Your task to perform on an android device: open chrome and create a bookmark for the current page Image 0: 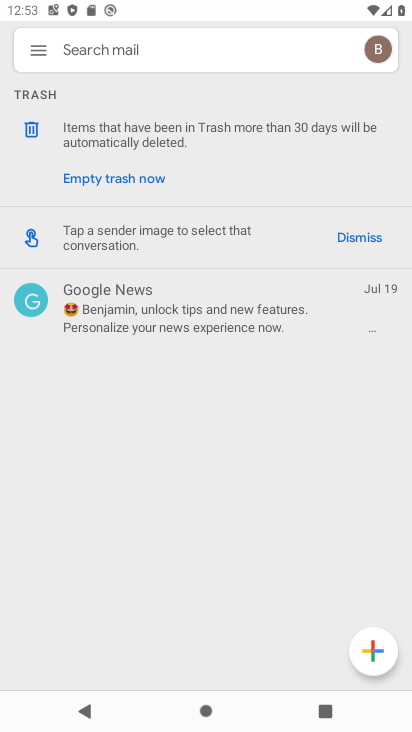
Step 0: press home button
Your task to perform on an android device: open chrome and create a bookmark for the current page Image 1: 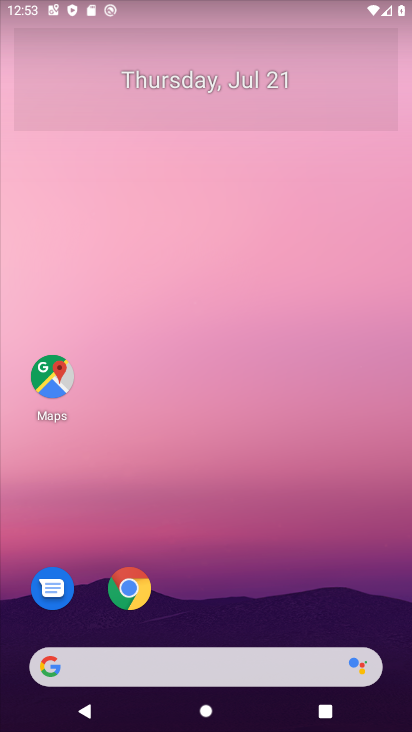
Step 1: click (129, 588)
Your task to perform on an android device: open chrome and create a bookmark for the current page Image 2: 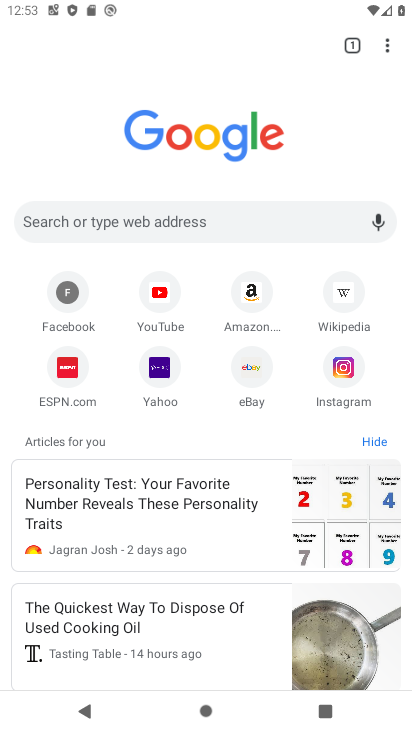
Step 2: click (383, 45)
Your task to perform on an android device: open chrome and create a bookmark for the current page Image 3: 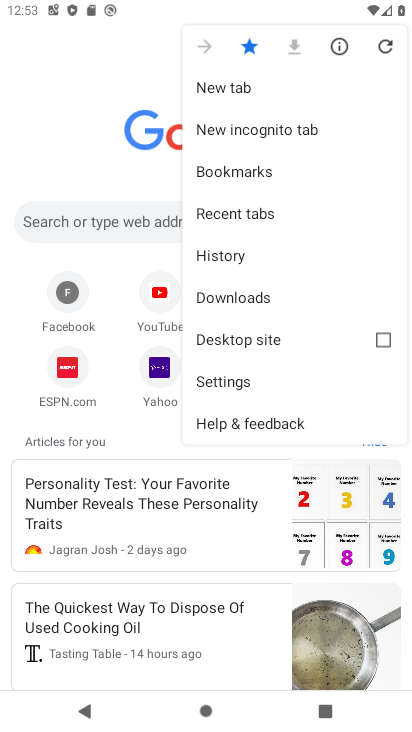
Step 3: click (258, 165)
Your task to perform on an android device: open chrome and create a bookmark for the current page Image 4: 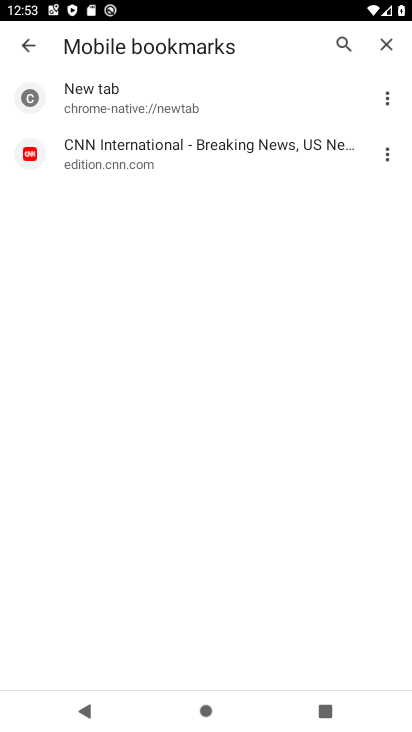
Step 4: task complete